Your task to perform on an android device: see sites visited before in the chrome app Image 0: 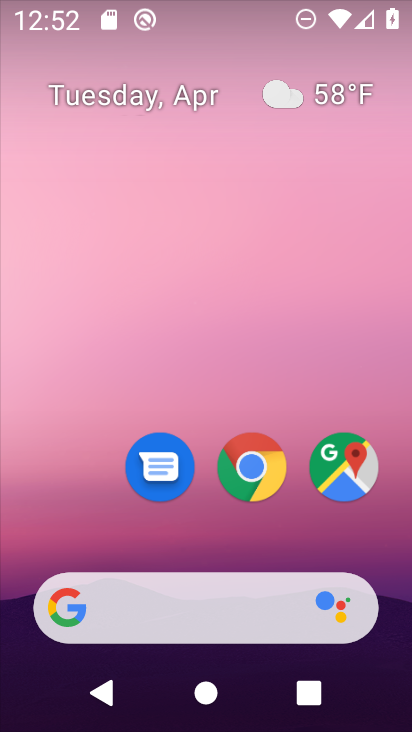
Step 0: click (258, 499)
Your task to perform on an android device: see sites visited before in the chrome app Image 1: 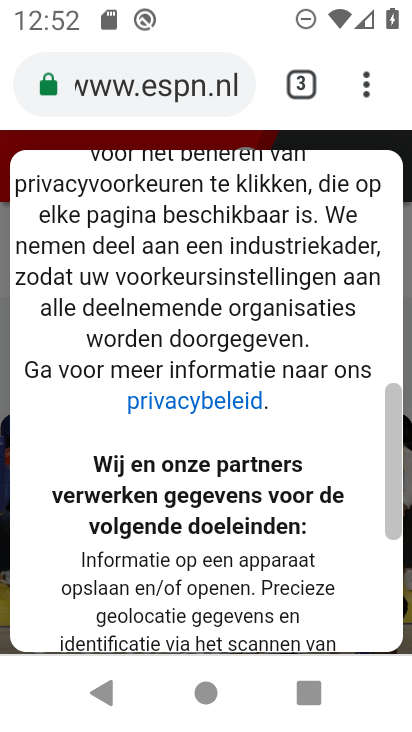
Step 1: click (375, 98)
Your task to perform on an android device: see sites visited before in the chrome app Image 2: 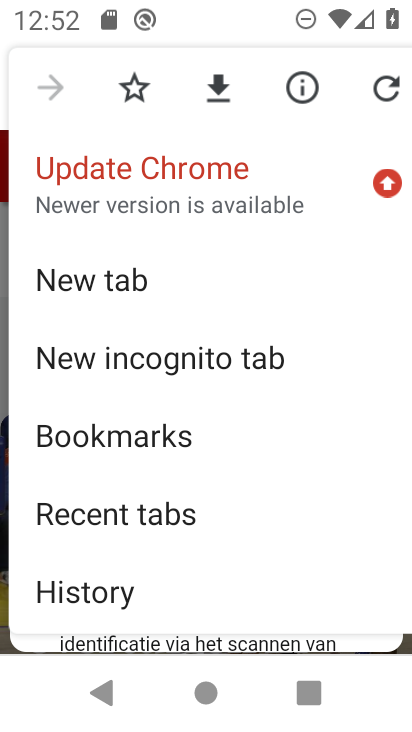
Step 2: click (61, 514)
Your task to perform on an android device: see sites visited before in the chrome app Image 3: 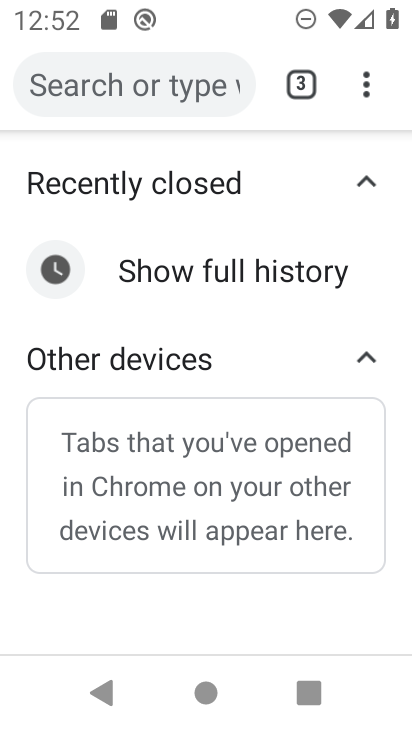
Step 3: task complete